Your task to perform on an android device: Open calendar and show me the first week of next month Image 0: 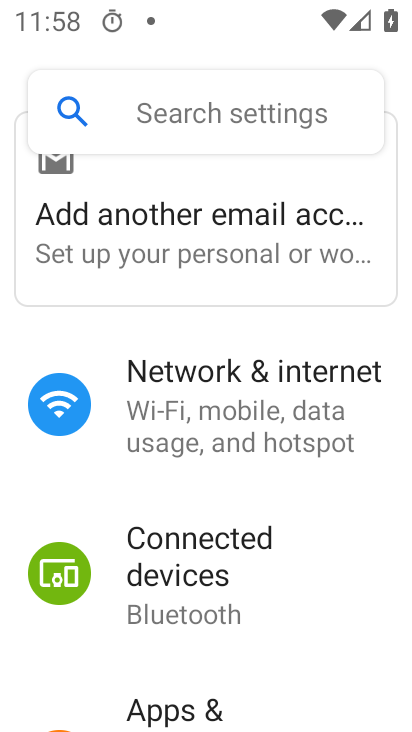
Step 0: press home button
Your task to perform on an android device: Open calendar and show me the first week of next month Image 1: 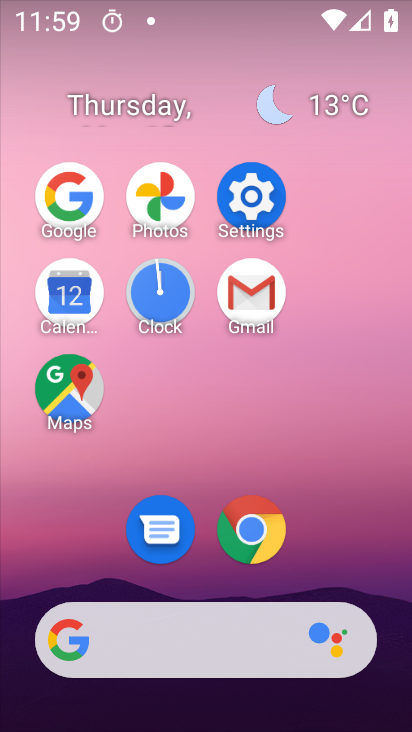
Step 1: click (74, 297)
Your task to perform on an android device: Open calendar and show me the first week of next month Image 2: 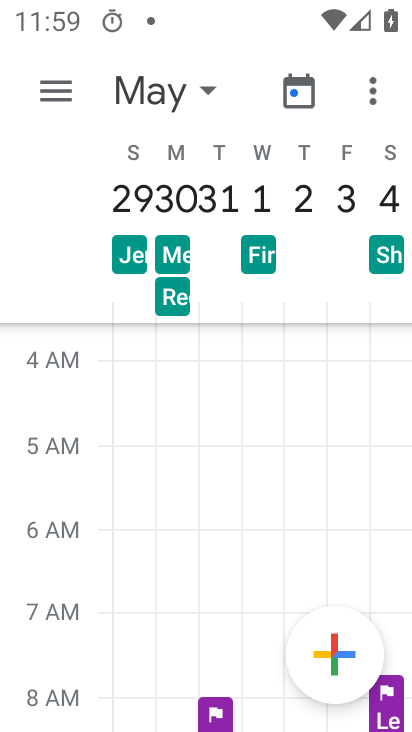
Step 2: click (50, 96)
Your task to perform on an android device: Open calendar and show me the first week of next month Image 3: 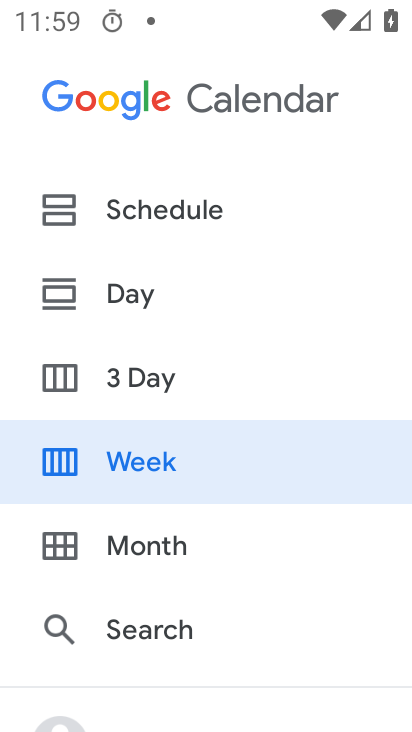
Step 3: click (229, 444)
Your task to perform on an android device: Open calendar and show me the first week of next month Image 4: 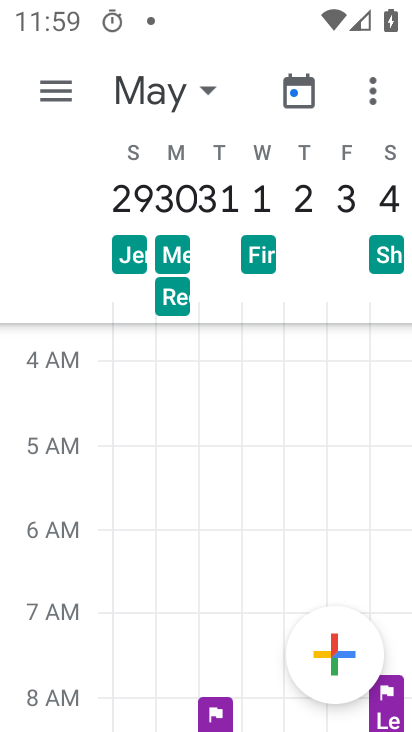
Step 4: click (196, 76)
Your task to perform on an android device: Open calendar and show me the first week of next month Image 5: 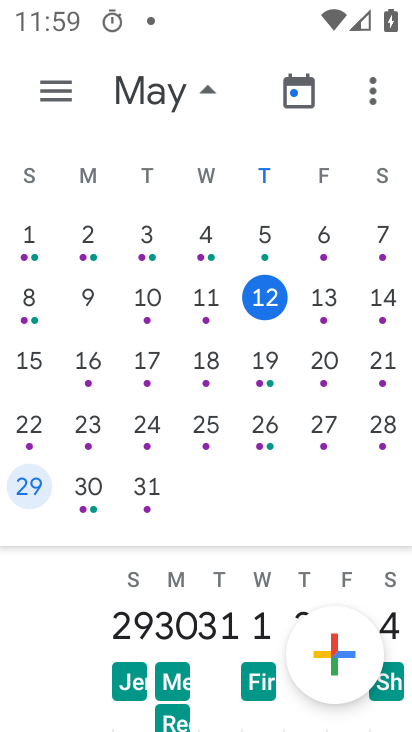
Step 5: click (179, 101)
Your task to perform on an android device: Open calendar and show me the first week of next month Image 6: 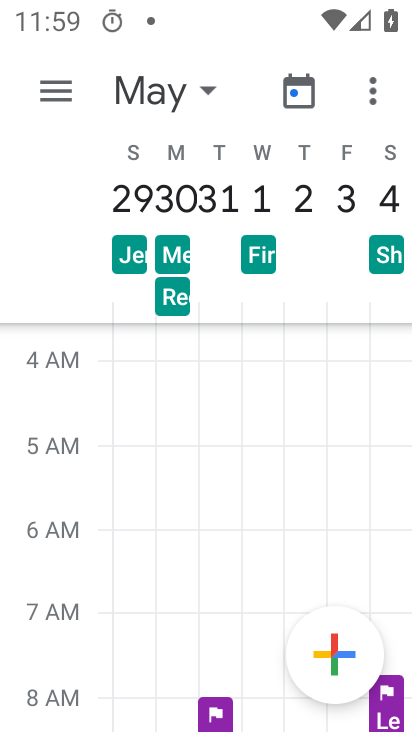
Step 6: task complete